Your task to perform on an android device: Open Google Chrome Image 0: 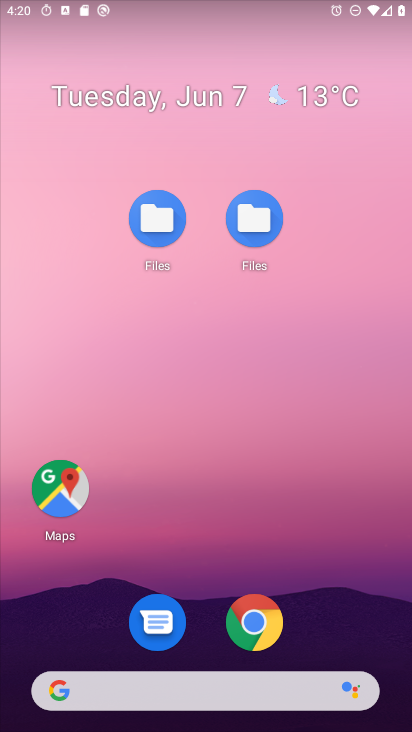
Step 0: click (270, 619)
Your task to perform on an android device: Open Google Chrome Image 1: 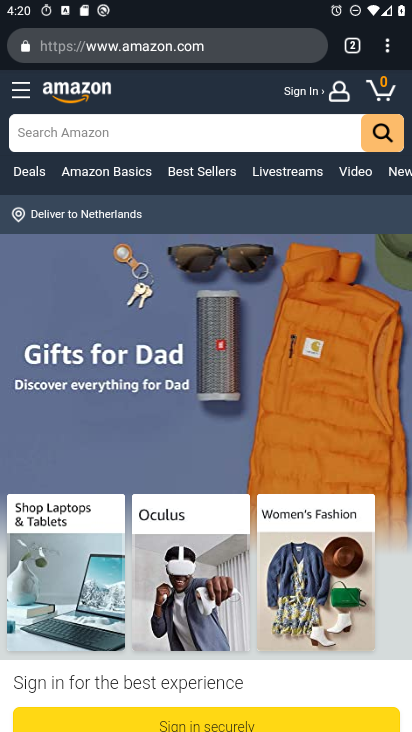
Step 1: task complete